Your task to perform on an android device: turn on notifications settings in the gmail app Image 0: 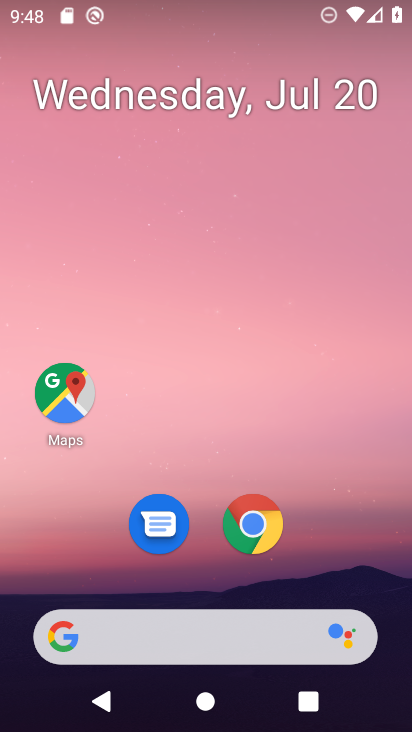
Step 0: press home button
Your task to perform on an android device: turn on notifications settings in the gmail app Image 1: 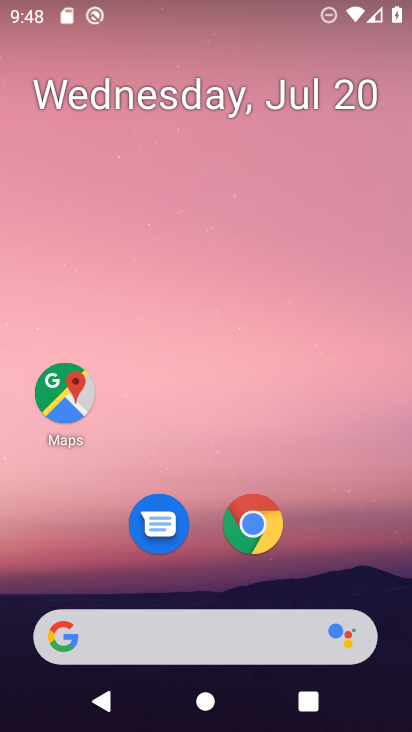
Step 1: drag from (171, 620) to (238, 90)
Your task to perform on an android device: turn on notifications settings in the gmail app Image 2: 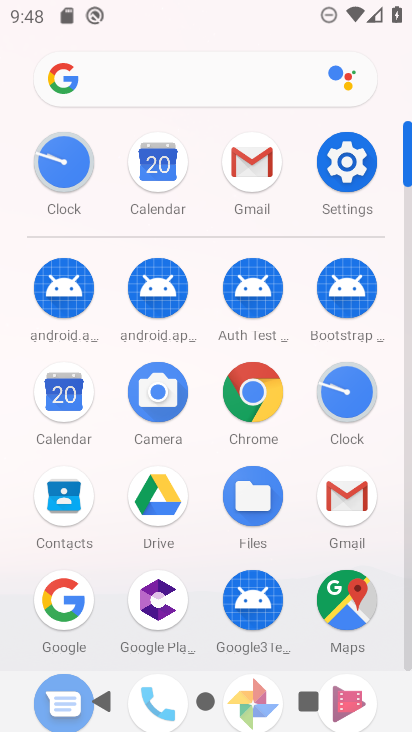
Step 2: click (256, 174)
Your task to perform on an android device: turn on notifications settings in the gmail app Image 3: 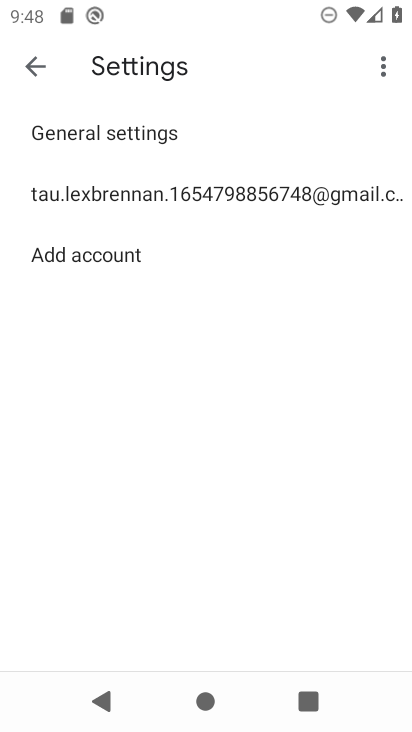
Step 3: click (247, 193)
Your task to perform on an android device: turn on notifications settings in the gmail app Image 4: 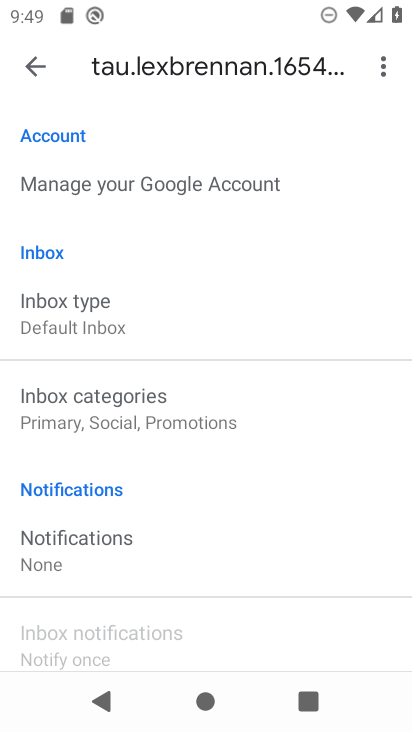
Step 4: click (107, 545)
Your task to perform on an android device: turn on notifications settings in the gmail app Image 5: 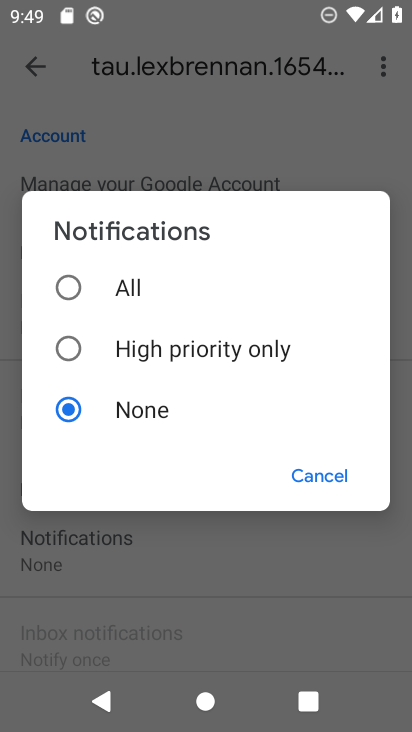
Step 5: click (66, 282)
Your task to perform on an android device: turn on notifications settings in the gmail app Image 6: 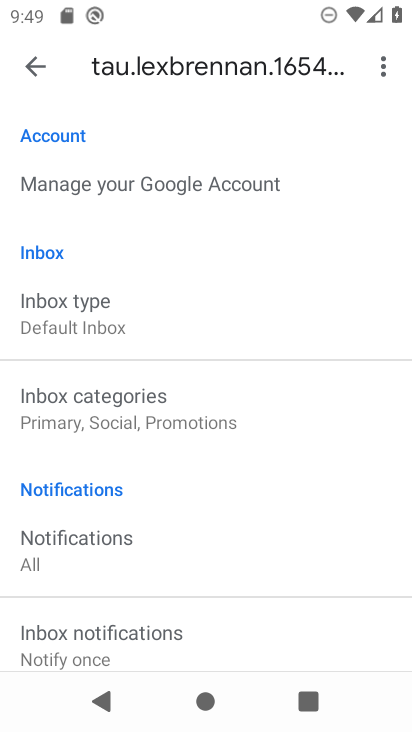
Step 6: task complete